Your task to perform on an android device: Show me popular games on the Play Store Image 0: 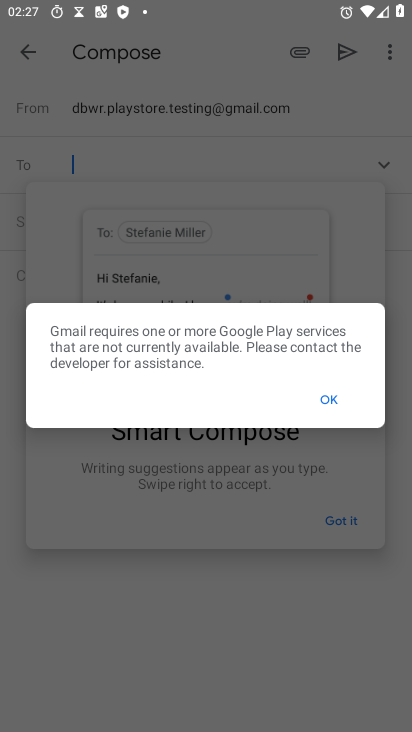
Step 0: press home button
Your task to perform on an android device: Show me popular games on the Play Store Image 1: 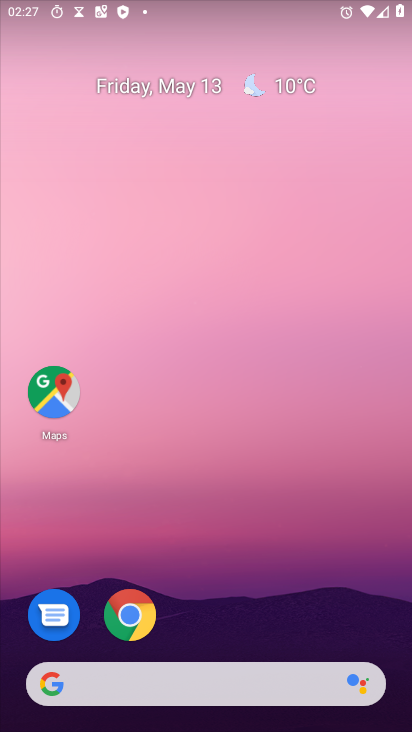
Step 1: drag from (195, 617) to (42, 166)
Your task to perform on an android device: Show me popular games on the Play Store Image 2: 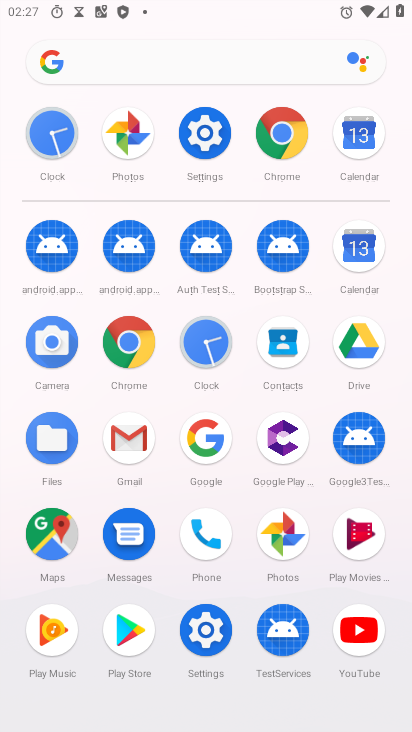
Step 2: click (128, 642)
Your task to perform on an android device: Show me popular games on the Play Store Image 3: 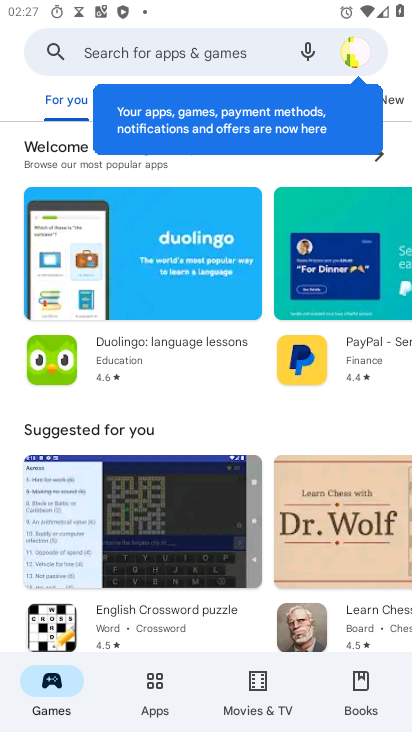
Step 3: click (60, 102)
Your task to perform on an android device: Show me popular games on the Play Store Image 4: 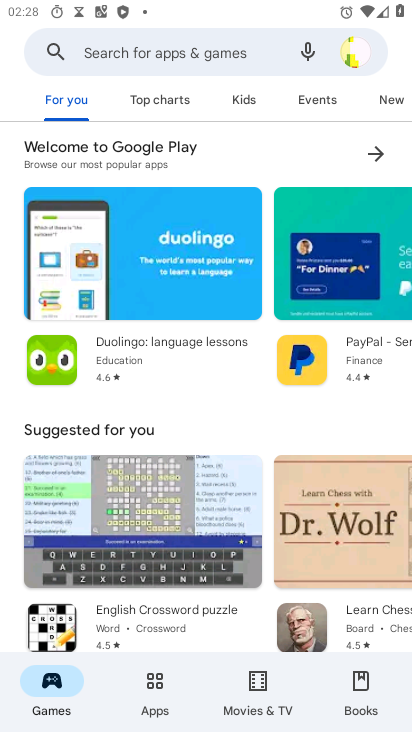
Step 4: click (182, 102)
Your task to perform on an android device: Show me popular games on the Play Store Image 5: 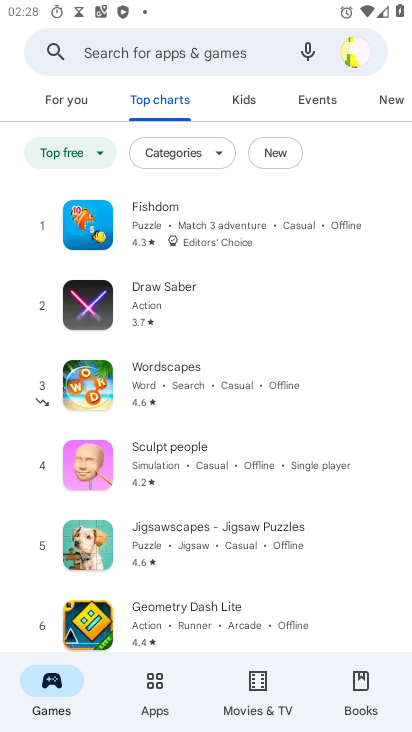
Step 5: task complete